Your task to perform on an android device: Go to ESPN.com Image 0: 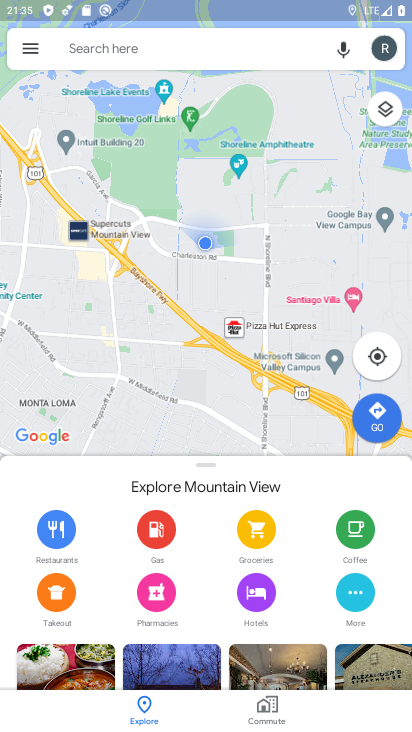
Step 0: press home button
Your task to perform on an android device: Go to ESPN.com Image 1: 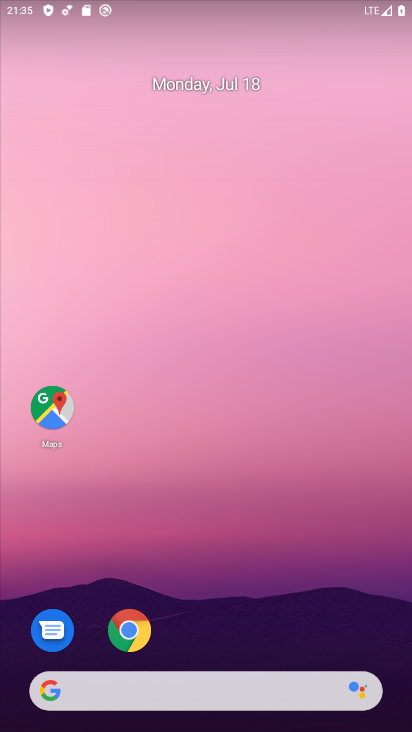
Step 1: drag from (184, 471) to (198, 298)
Your task to perform on an android device: Go to ESPN.com Image 2: 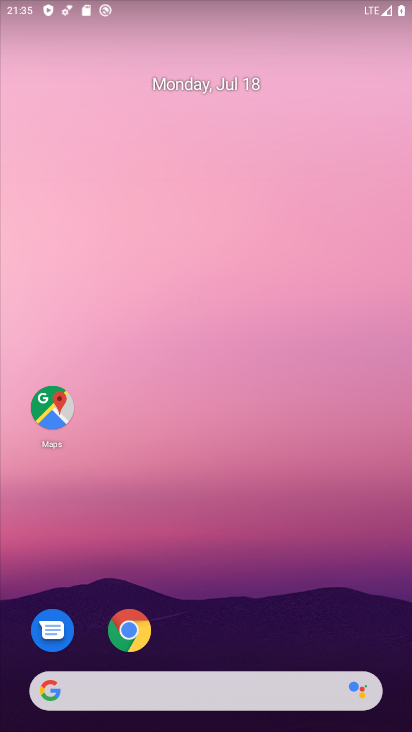
Step 2: drag from (196, 685) to (196, 248)
Your task to perform on an android device: Go to ESPN.com Image 3: 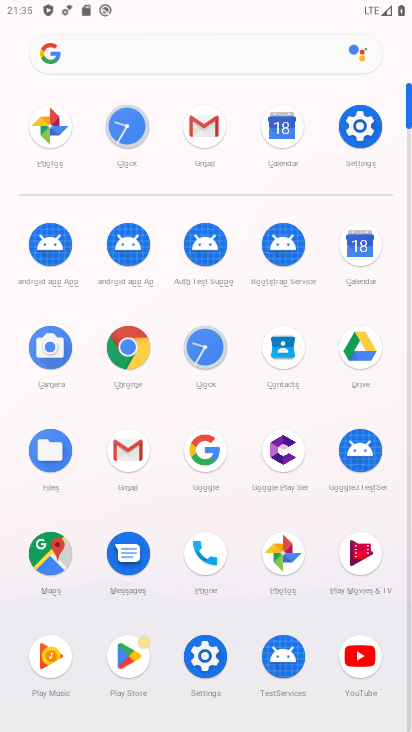
Step 3: click (129, 353)
Your task to perform on an android device: Go to ESPN.com Image 4: 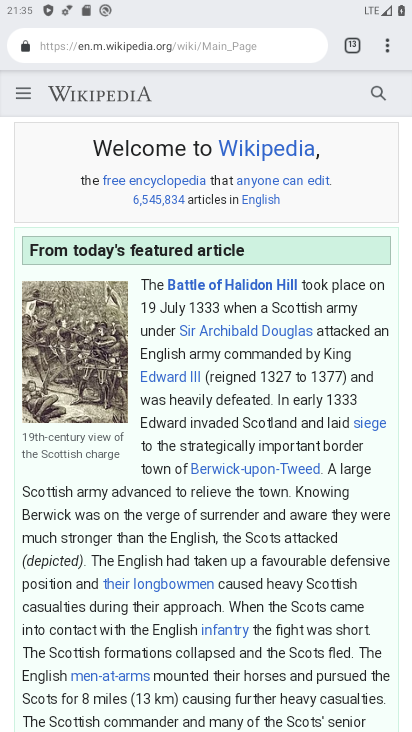
Step 4: click (381, 39)
Your task to perform on an android device: Go to ESPN.com Image 5: 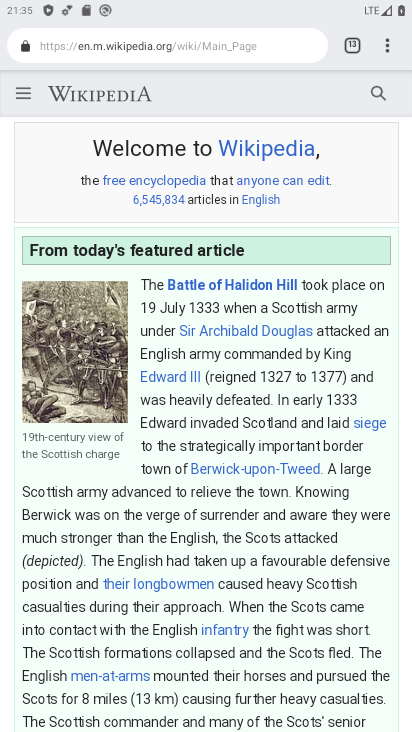
Step 5: click (391, 44)
Your task to perform on an android device: Go to ESPN.com Image 6: 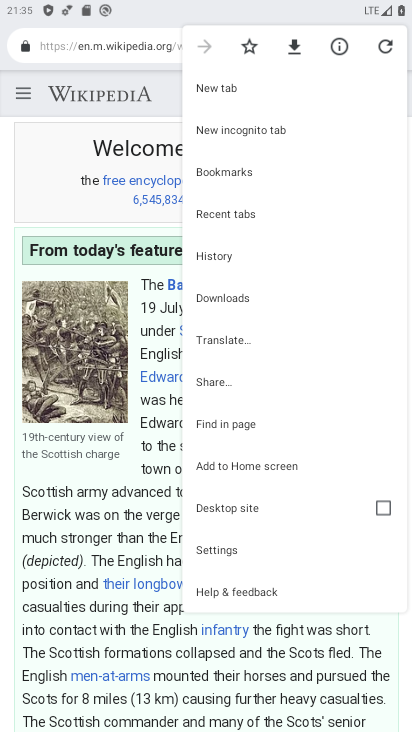
Step 6: click (200, 87)
Your task to perform on an android device: Go to ESPN.com Image 7: 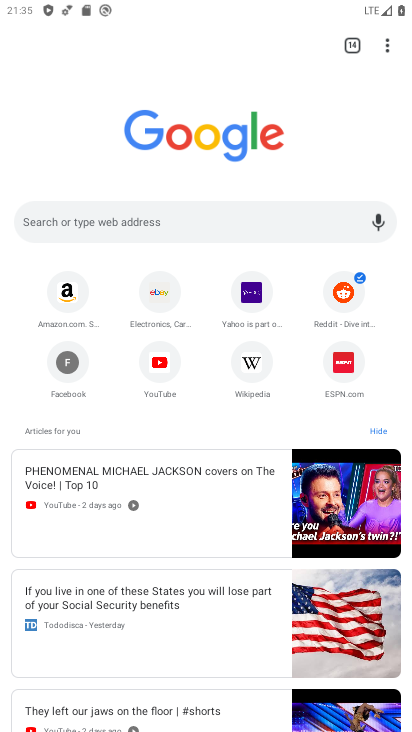
Step 7: click (352, 361)
Your task to perform on an android device: Go to ESPN.com Image 8: 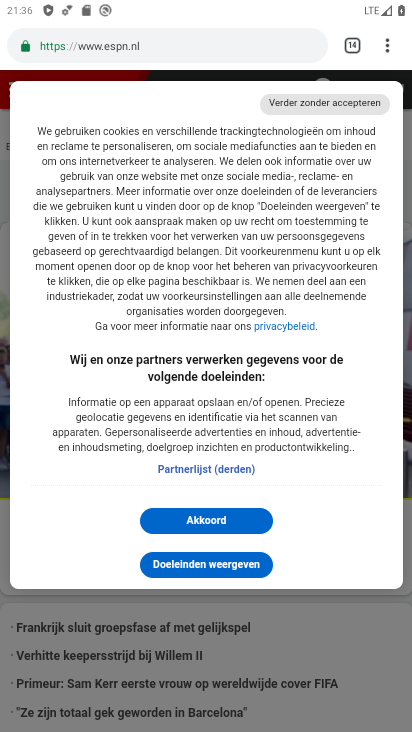
Step 8: task complete